Your task to perform on an android device: turn off sleep mode Image 0: 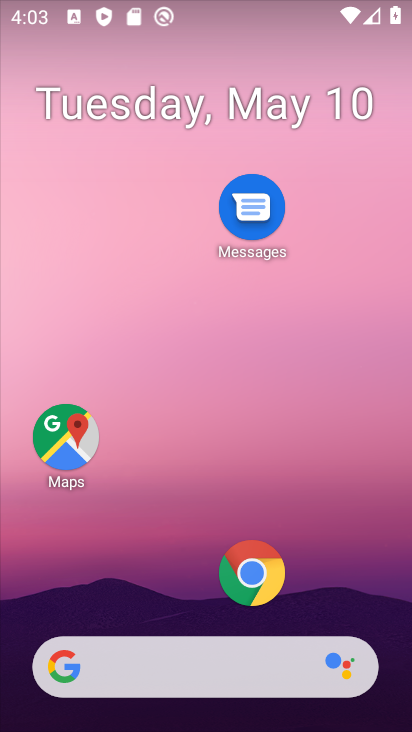
Step 0: drag from (154, 601) to (188, 160)
Your task to perform on an android device: turn off sleep mode Image 1: 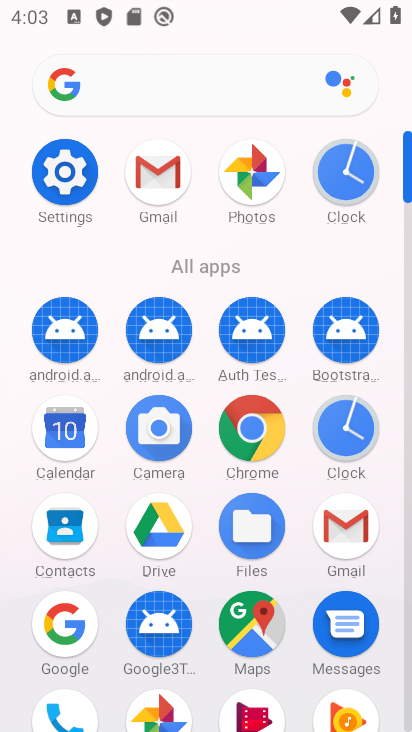
Step 1: click (40, 176)
Your task to perform on an android device: turn off sleep mode Image 2: 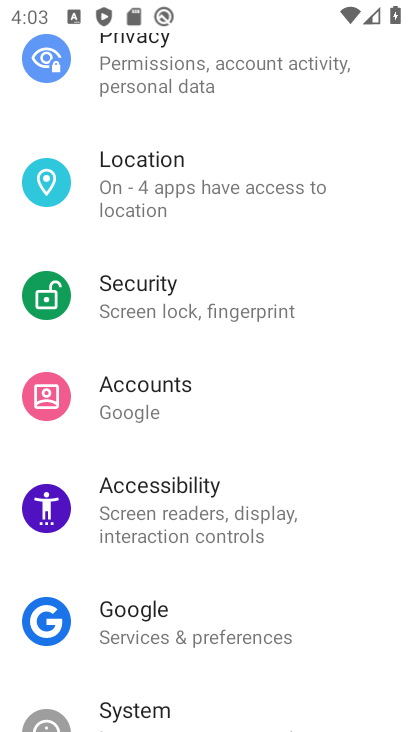
Step 2: drag from (189, 140) to (220, 538)
Your task to perform on an android device: turn off sleep mode Image 3: 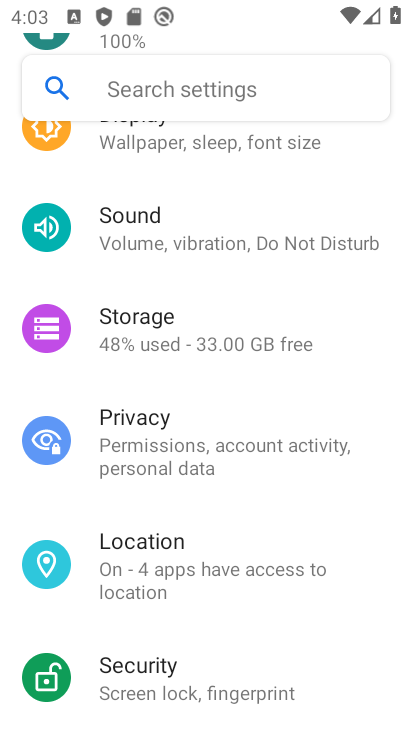
Step 3: drag from (199, 210) to (220, 575)
Your task to perform on an android device: turn off sleep mode Image 4: 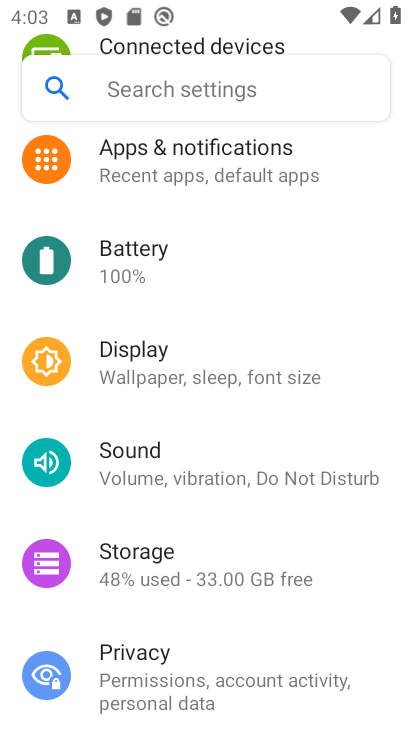
Step 4: click (130, 368)
Your task to perform on an android device: turn off sleep mode Image 5: 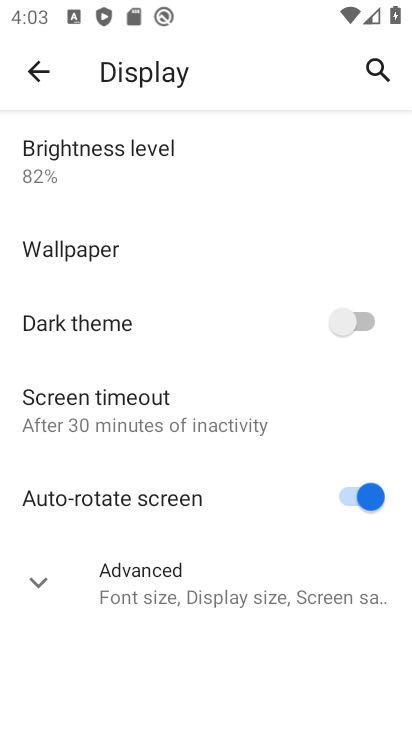
Step 5: click (143, 406)
Your task to perform on an android device: turn off sleep mode Image 6: 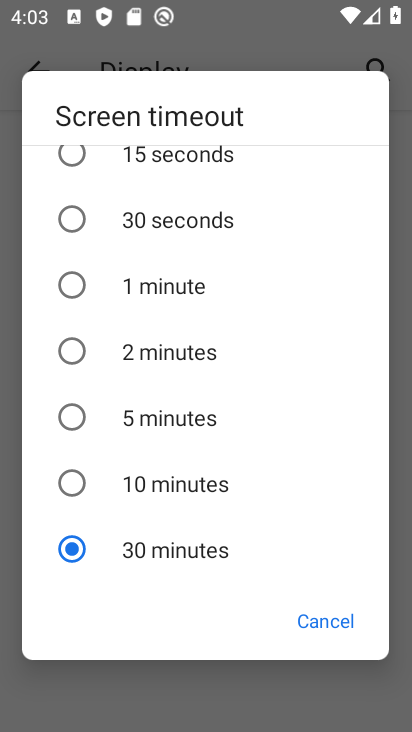
Step 6: click (133, 353)
Your task to perform on an android device: turn off sleep mode Image 7: 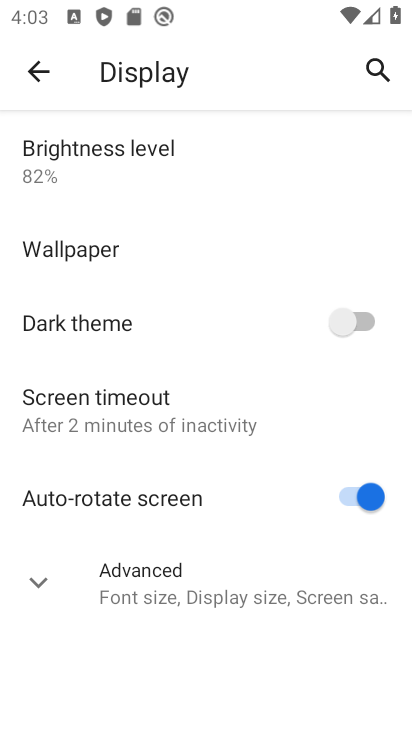
Step 7: task complete